Your task to perform on an android device: turn on javascript in the chrome app Image 0: 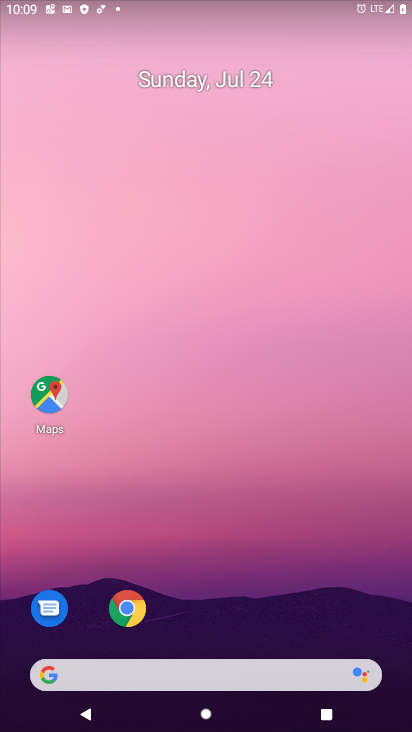
Step 0: press home button
Your task to perform on an android device: turn on javascript in the chrome app Image 1: 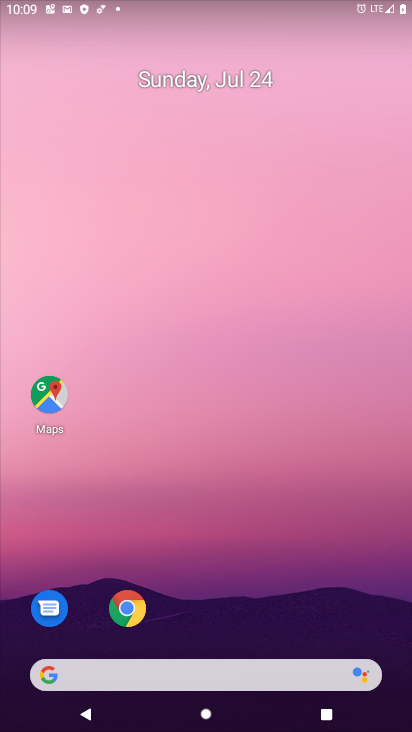
Step 1: click (123, 605)
Your task to perform on an android device: turn on javascript in the chrome app Image 2: 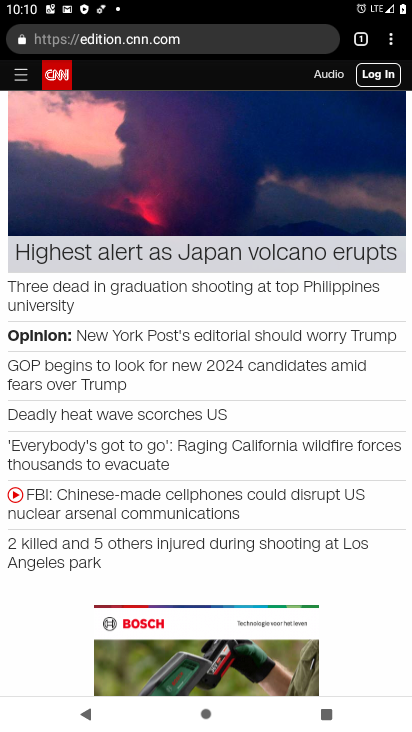
Step 2: click (389, 39)
Your task to perform on an android device: turn on javascript in the chrome app Image 3: 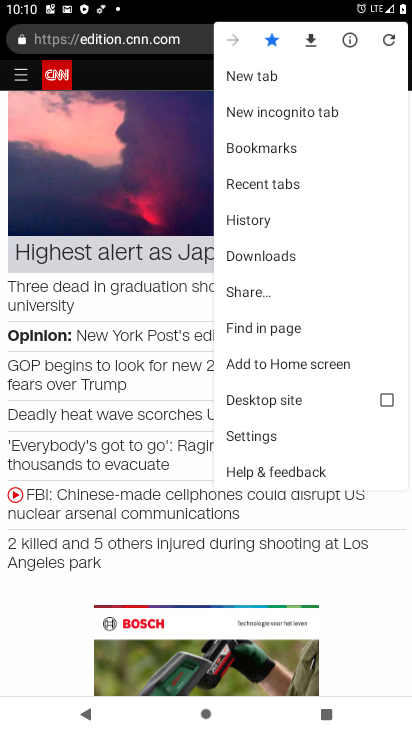
Step 3: click (292, 432)
Your task to perform on an android device: turn on javascript in the chrome app Image 4: 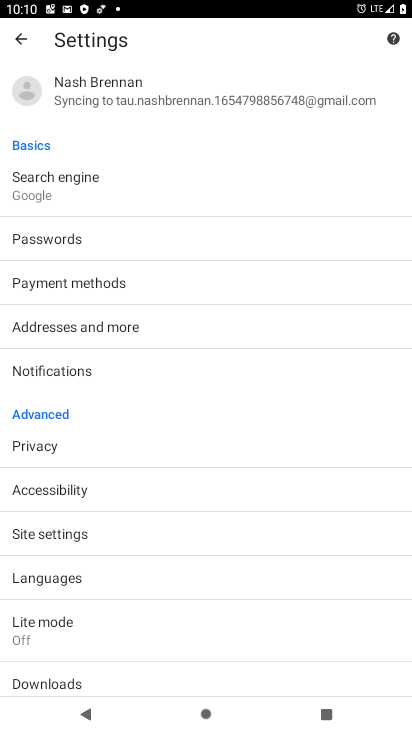
Step 4: click (97, 533)
Your task to perform on an android device: turn on javascript in the chrome app Image 5: 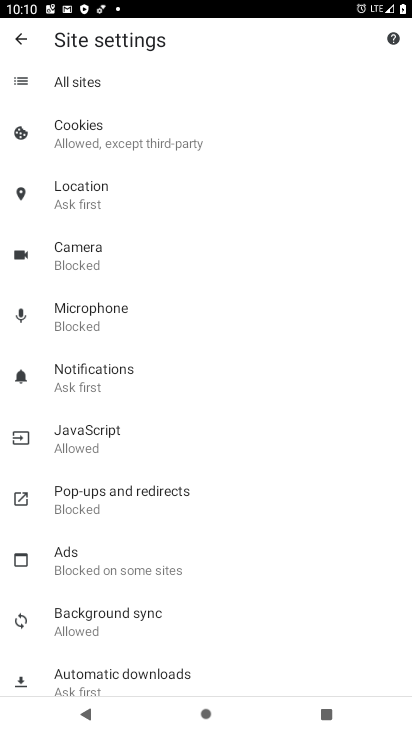
Step 5: click (127, 431)
Your task to perform on an android device: turn on javascript in the chrome app Image 6: 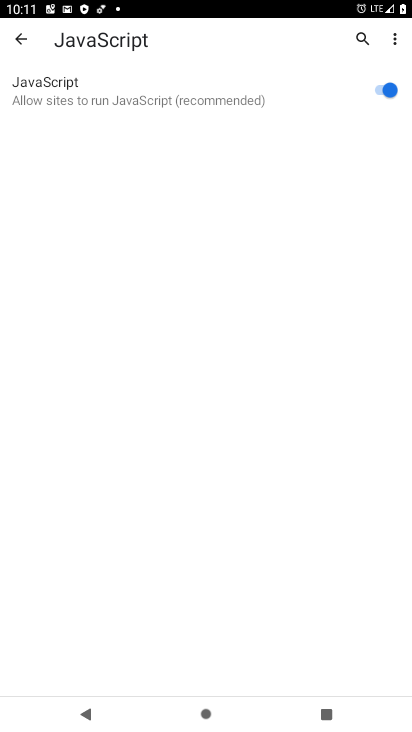
Step 6: task complete